Your task to perform on an android device: turn on bluetooth scan Image 0: 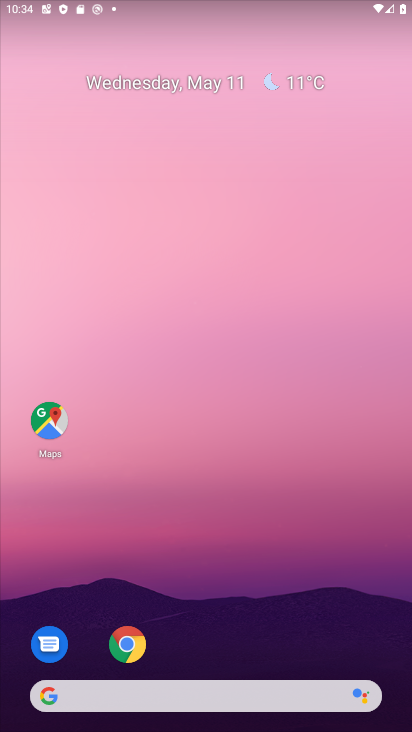
Step 0: press home button
Your task to perform on an android device: turn on bluetooth scan Image 1: 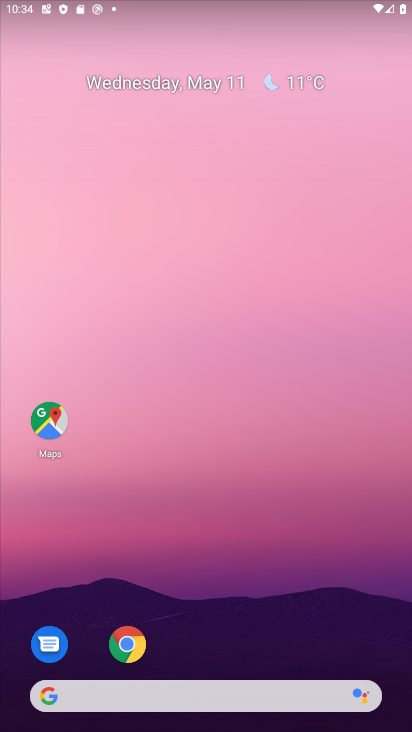
Step 1: drag from (209, 658) to (209, 92)
Your task to perform on an android device: turn on bluetooth scan Image 2: 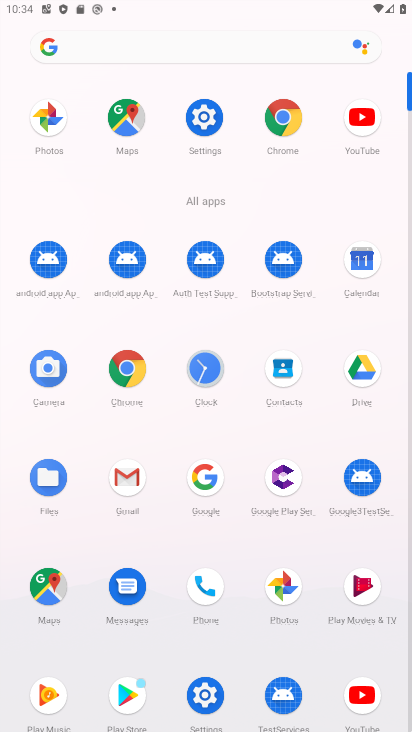
Step 2: click (199, 114)
Your task to perform on an android device: turn on bluetooth scan Image 3: 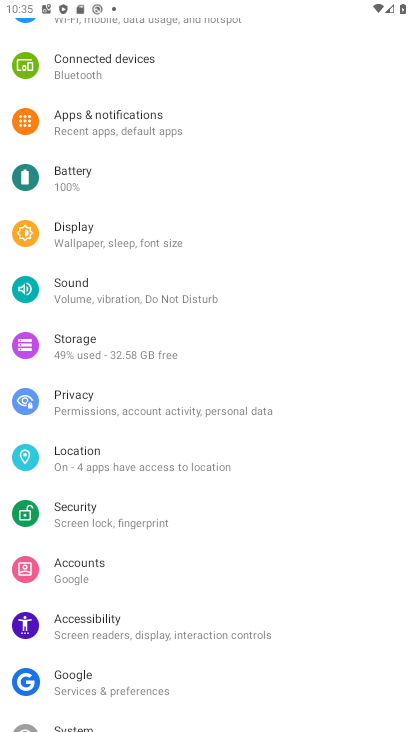
Step 3: click (118, 450)
Your task to perform on an android device: turn on bluetooth scan Image 4: 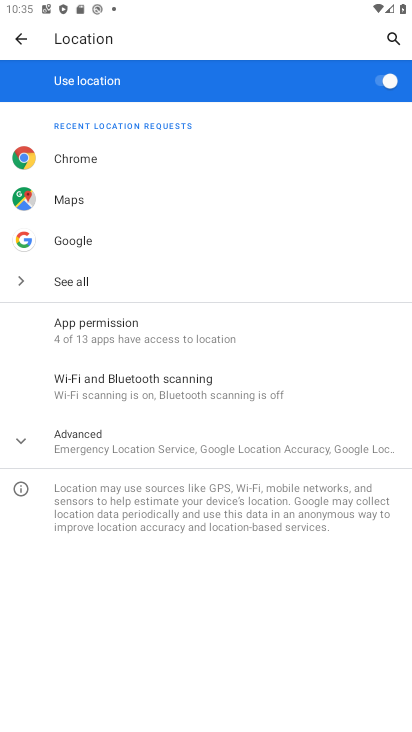
Step 4: click (143, 381)
Your task to perform on an android device: turn on bluetooth scan Image 5: 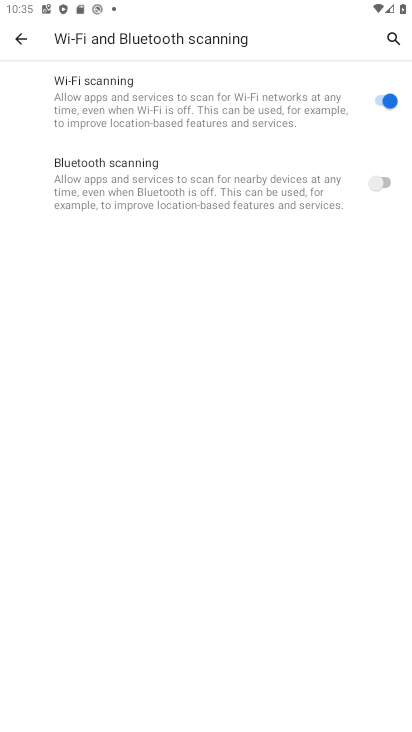
Step 5: click (378, 175)
Your task to perform on an android device: turn on bluetooth scan Image 6: 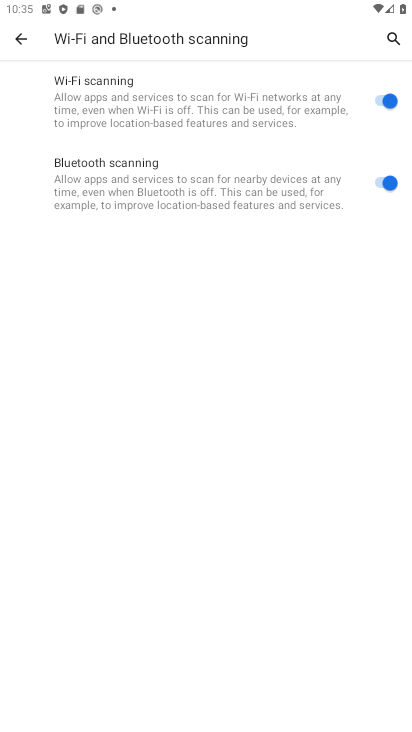
Step 6: task complete